Your task to perform on an android device: toggle notifications settings in the gmail app Image 0: 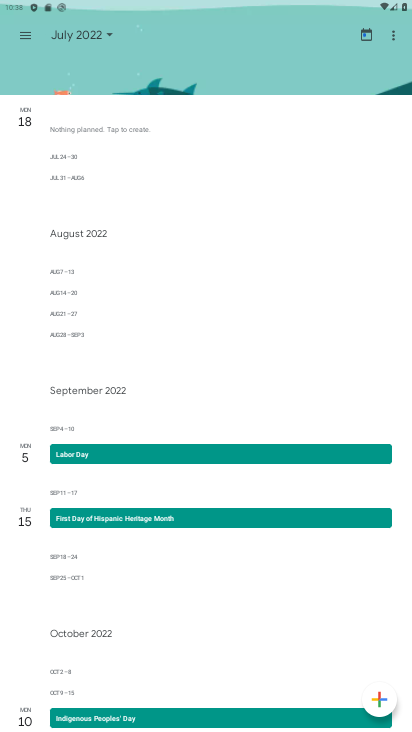
Step 0: press home button
Your task to perform on an android device: toggle notifications settings in the gmail app Image 1: 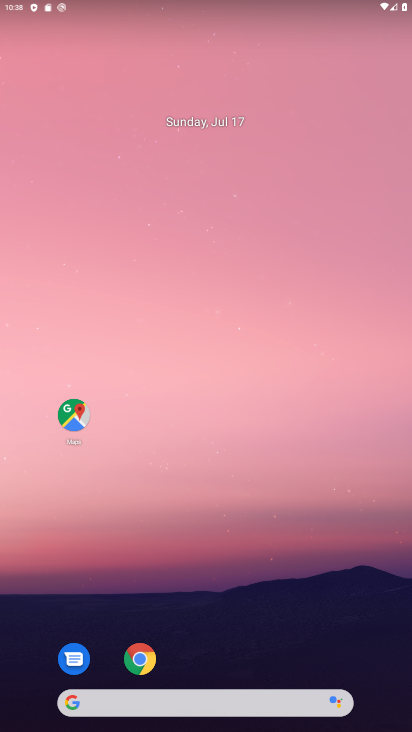
Step 1: drag from (245, 600) to (236, 0)
Your task to perform on an android device: toggle notifications settings in the gmail app Image 2: 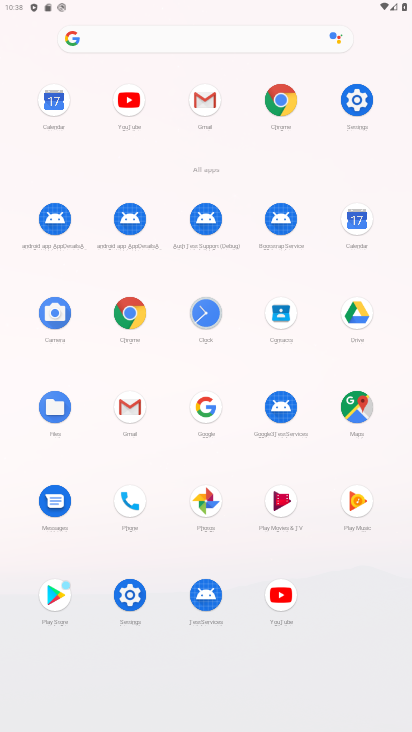
Step 2: click (209, 100)
Your task to perform on an android device: toggle notifications settings in the gmail app Image 3: 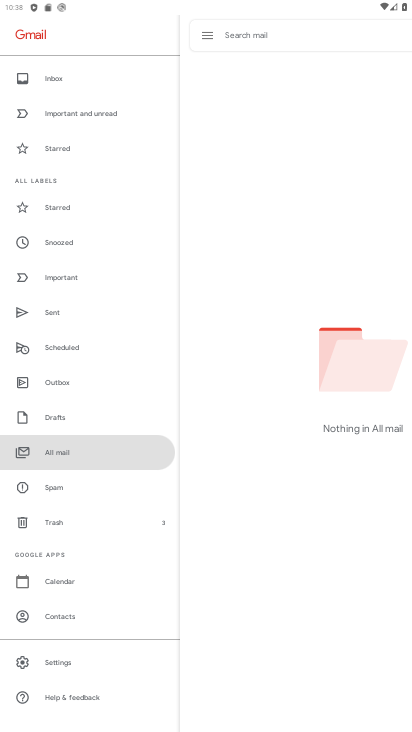
Step 3: click (70, 667)
Your task to perform on an android device: toggle notifications settings in the gmail app Image 4: 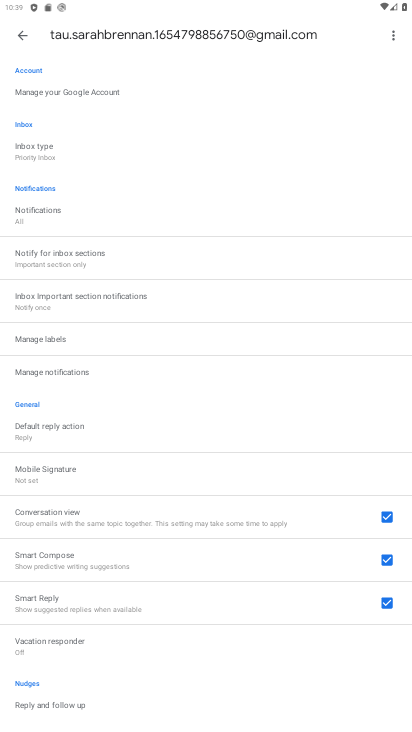
Step 4: click (79, 375)
Your task to perform on an android device: toggle notifications settings in the gmail app Image 5: 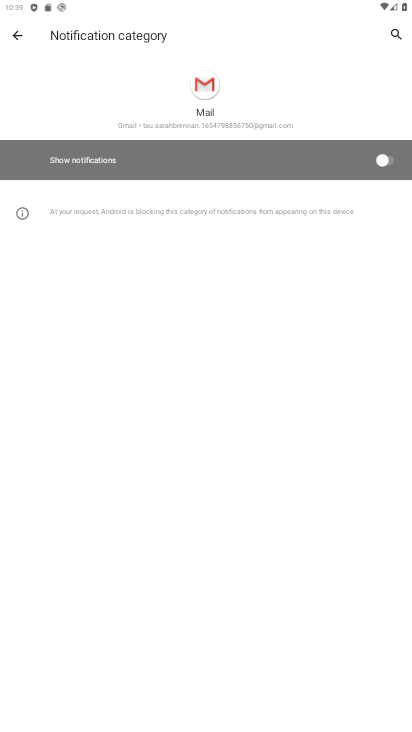
Step 5: click (376, 172)
Your task to perform on an android device: toggle notifications settings in the gmail app Image 6: 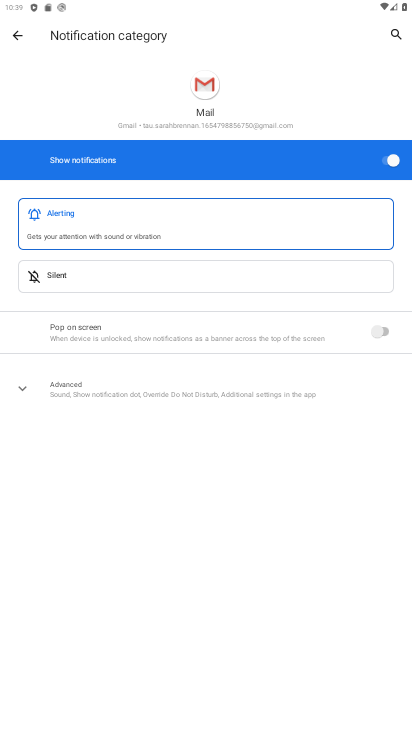
Step 6: task complete